Your task to perform on an android device: change notifications settings Image 0: 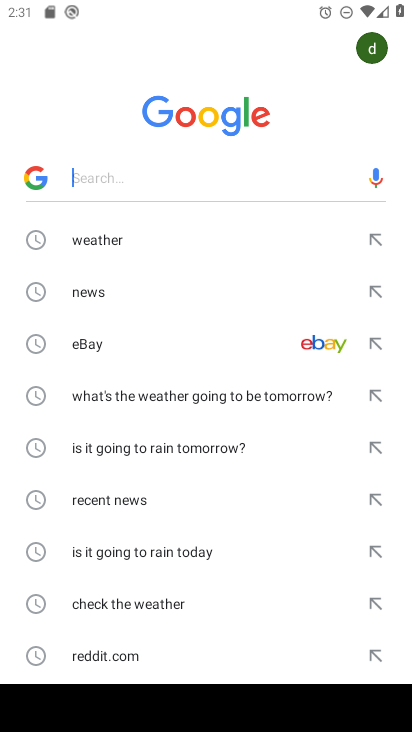
Step 0: press home button
Your task to perform on an android device: change notifications settings Image 1: 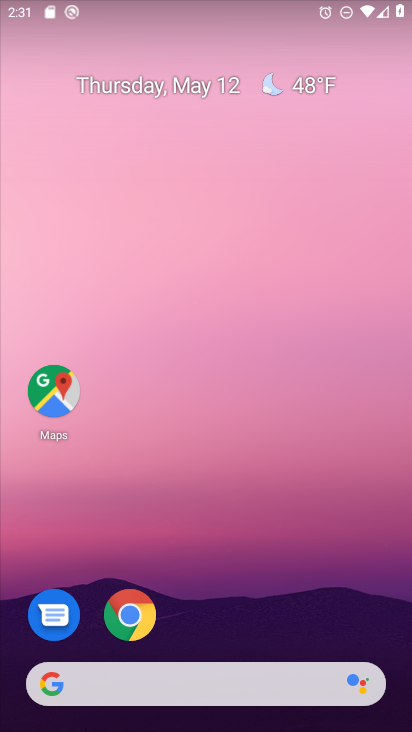
Step 1: drag from (256, 670) to (254, 53)
Your task to perform on an android device: change notifications settings Image 2: 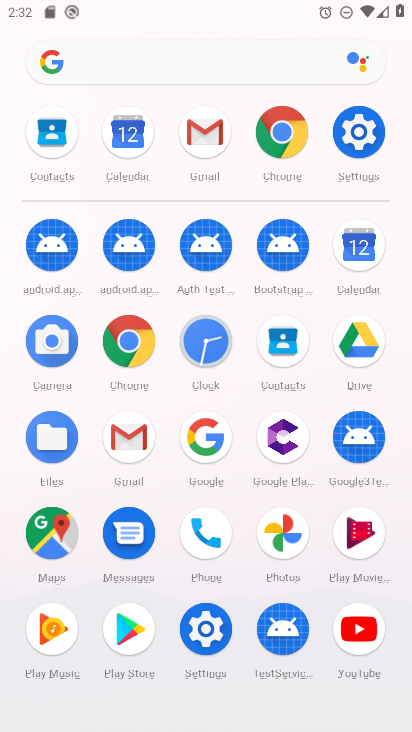
Step 2: click (367, 132)
Your task to perform on an android device: change notifications settings Image 3: 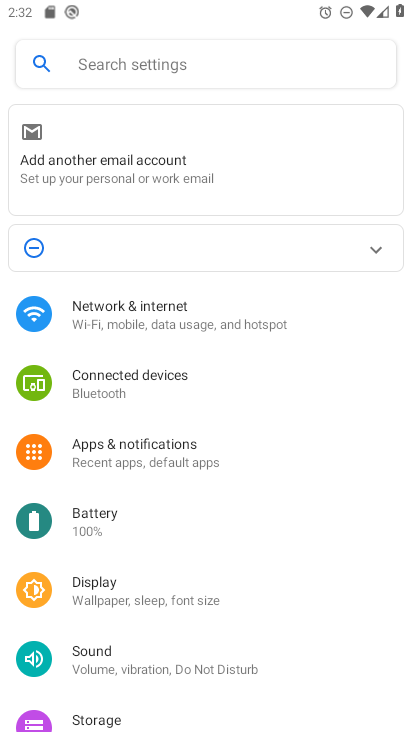
Step 3: drag from (260, 683) to (274, 422)
Your task to perform on an android device: change notifications settings Image 4: 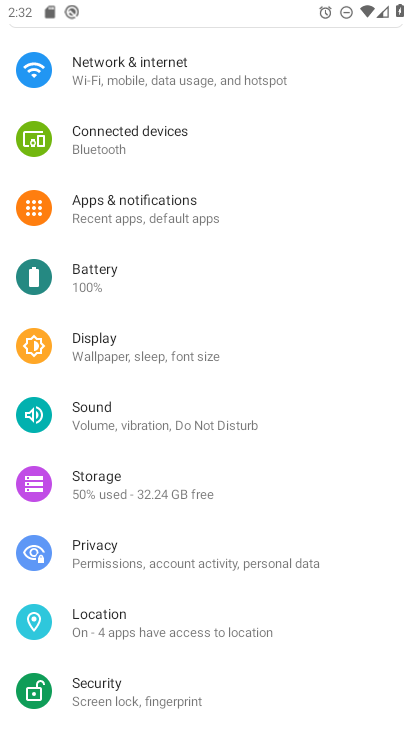
Step 4: click (215, 207)
Your task to perform on an android device: change notifications settings Image 5: 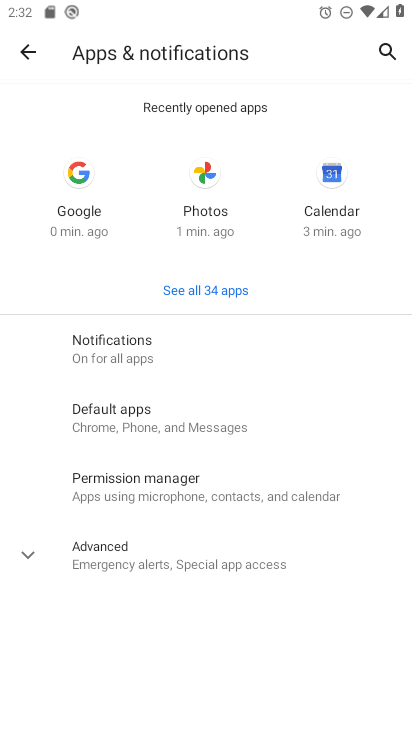
Step 5: click (162, 347)
Your task to perform on an android device: change notifications settings Image 6: 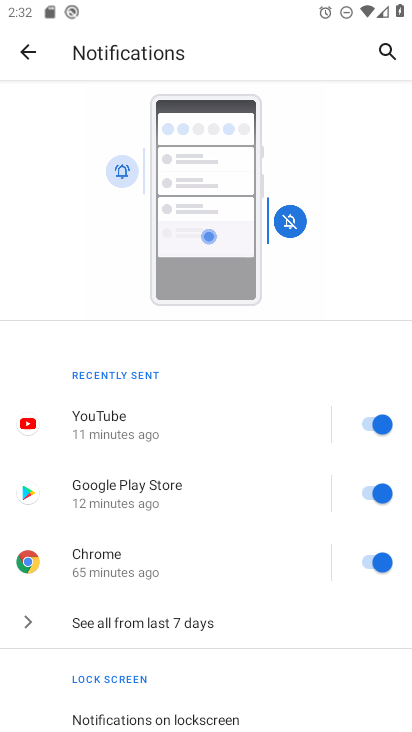
Step 6: drag from (265, 653) to (333, 160)
Your task to perform on an android device: change notifications settings Image 7: 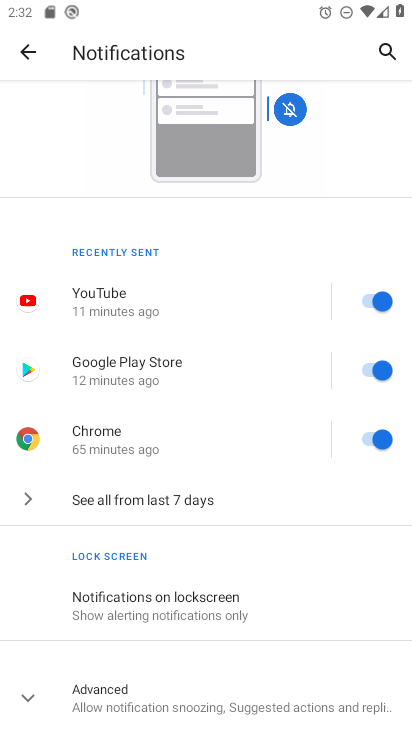
Step 7: click (370, 307)
Your task to perform on an android device: change notifications settings Image 8: 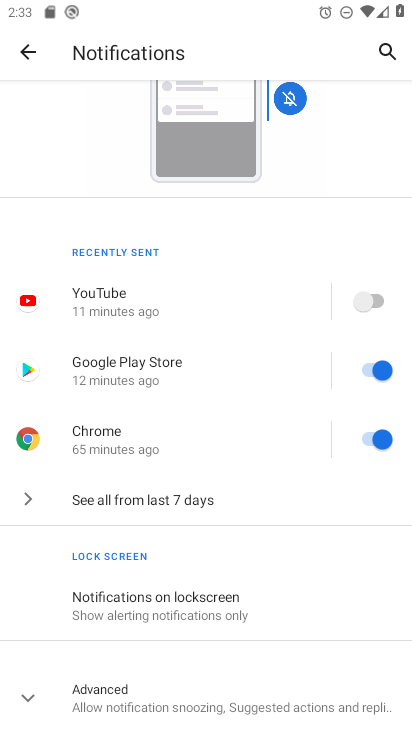
Step 8: click (369, 373)
Your task to perform on an android device: change notifications settings Image 9: 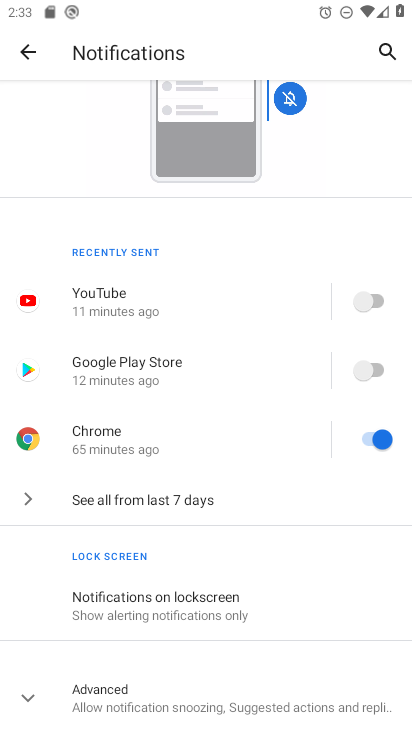
Step 9: click (367, 441)
Your task to perform on an android device: change notifications settings Image 10: 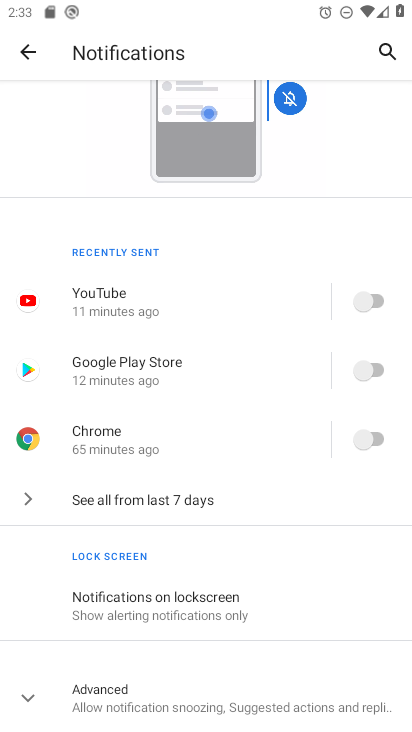
Step 10: task complete